Your task to perform on an android device: check the backup settings in the google photos Image 0: 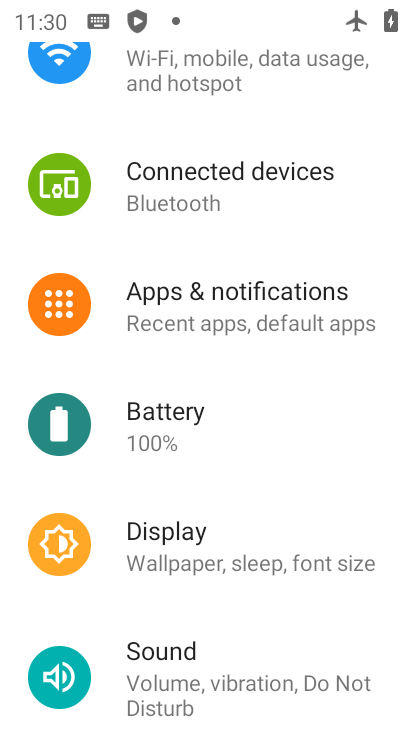
Step 0: press home button
Your task to perform on an android device: check the backup settings in the google photos Image 1: 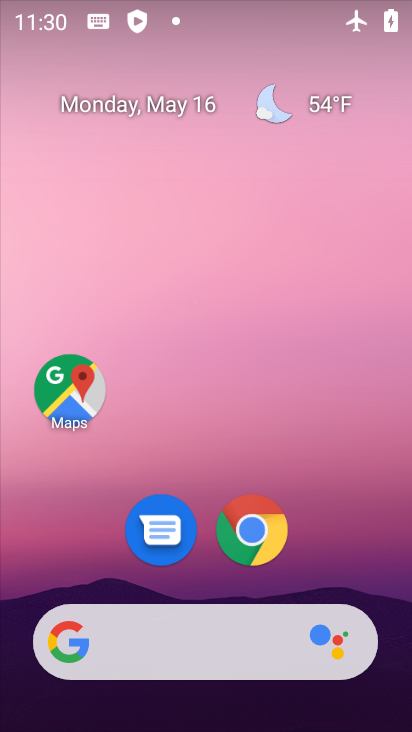
Step 1: drag from (372, 584) to (396, 136)
Your task to perform on an android device: check the backup settings in the google photos Image 2: 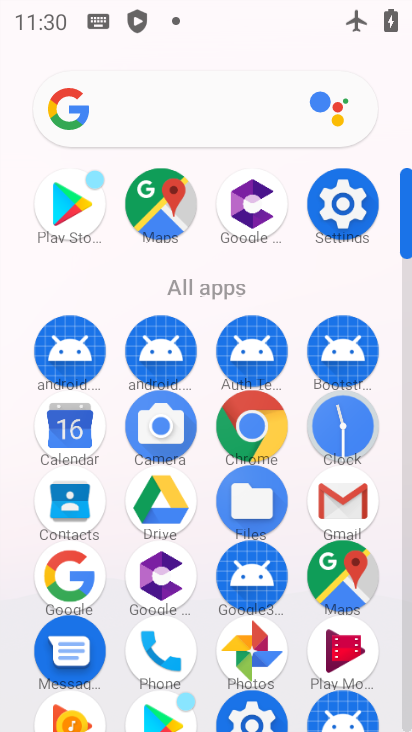
Step 2: click (259, 655)
Your task to perform on an android device: check the backup settings in the google photos Image 3: 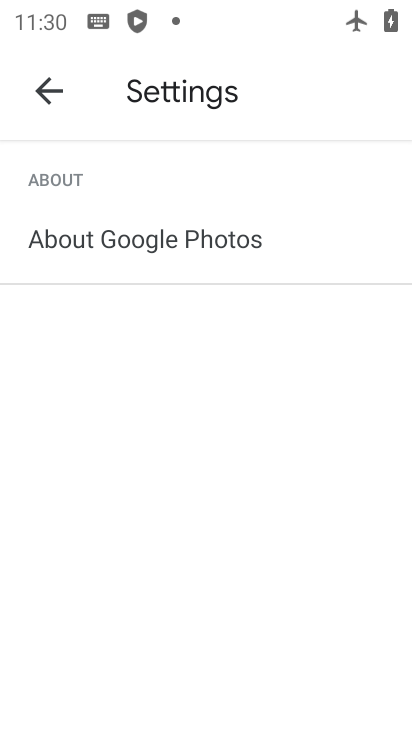
Step 3: click (53, 83)
Your task to perform on an android device: check the backup settings in the google photos Image 4: 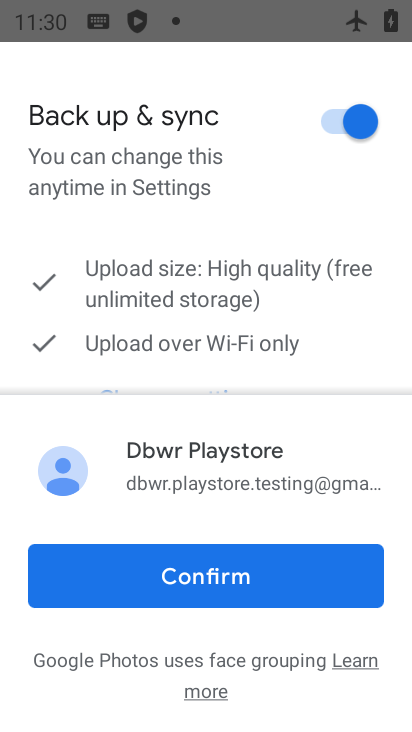
Step 4: click (170, 587)
Your task to perform on an android device: check the backup settings in the google photos Image 5: 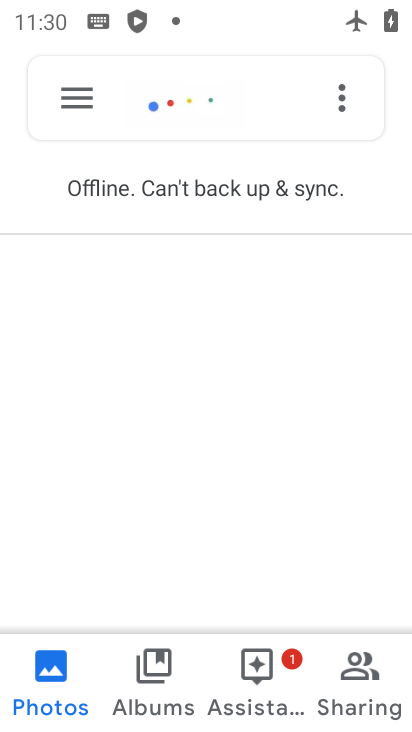
Step 5: click (80, 95)
Your task to perform on an android device: check the backup settings in the google photos Image 6: 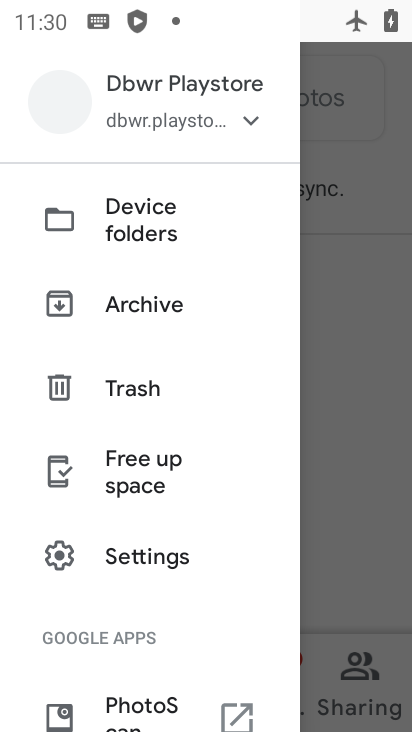
Step 6: drag from (241, 552) to (258, 352)
Your task to perform on an android device: check the backup settings in the google photos Image 7: 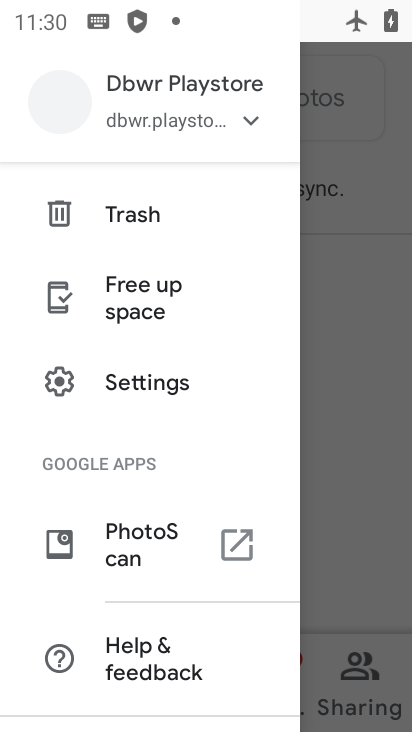
Step 7: click (189, 399)
Your task to perform on an android device: check the backup settings in the google photos Image 8: 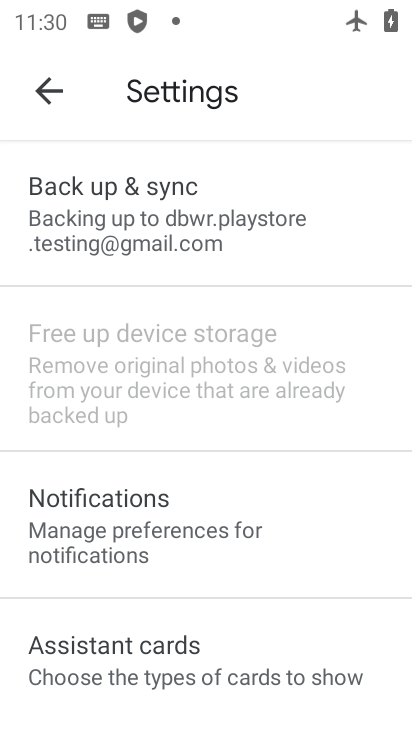
Step 8: click (224, 228)
Your task to perform on an android device: check the backup settings in the google photos Image 9: 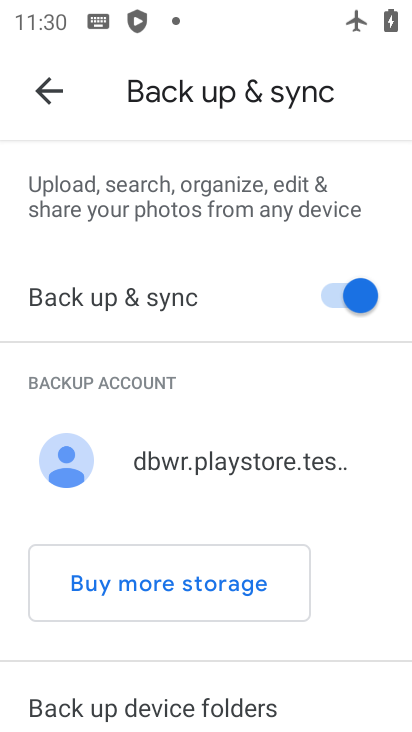
Step 9: task complete